Your task to perform on an android device: turn off picture-in-picture Image 0: 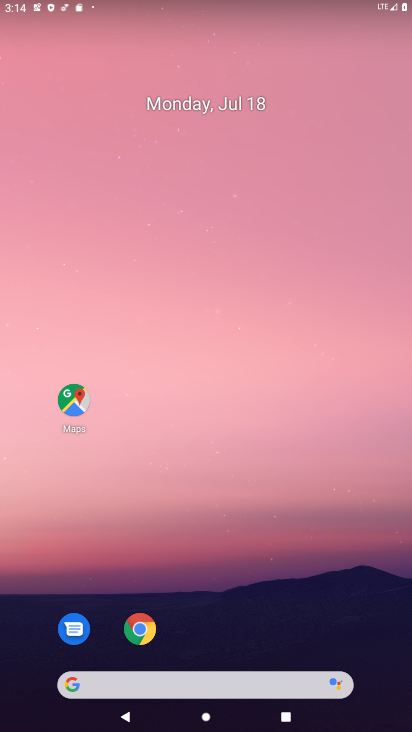
Step 0: click (152, 629)
Your task to perform on an android device: turn off picture-in-picture Image 1: 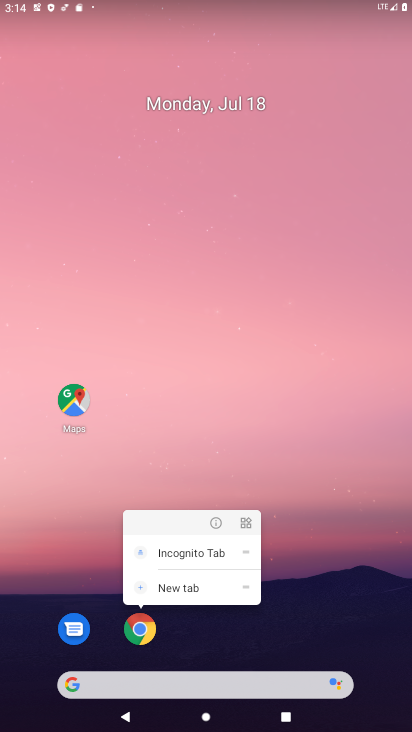
Step 1: click (210, 525)
Your task to perform on an android device: turn off picture-in-picture Image 2: 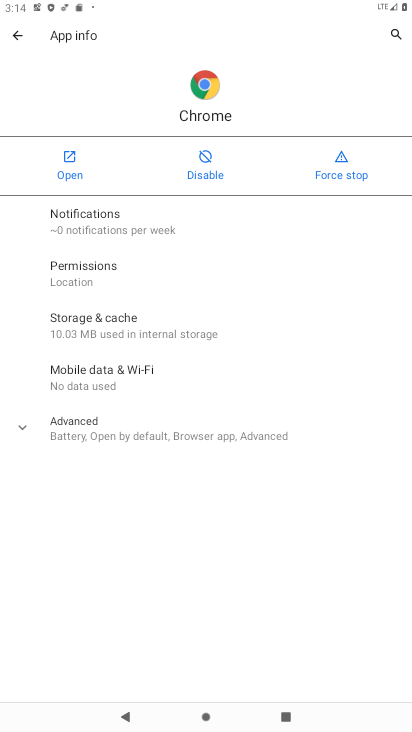
Step 2: click (93, 438)
Your task to perform on an android device: turn off picture-in-picture Image 3: 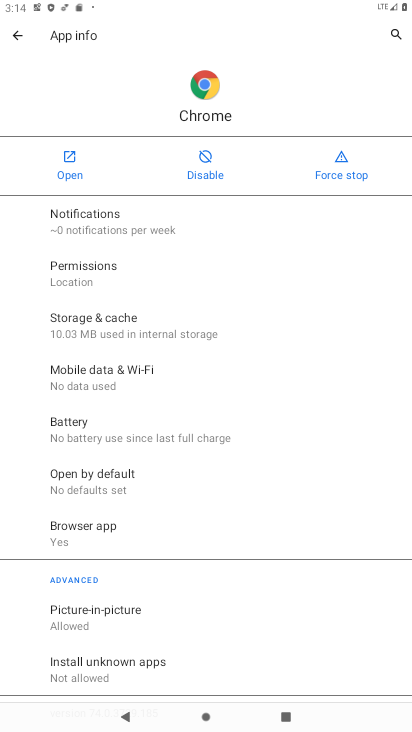
Step 3: click (101, 617)
Your task to perform on an android device: turn off picture-in-picture Image 4: 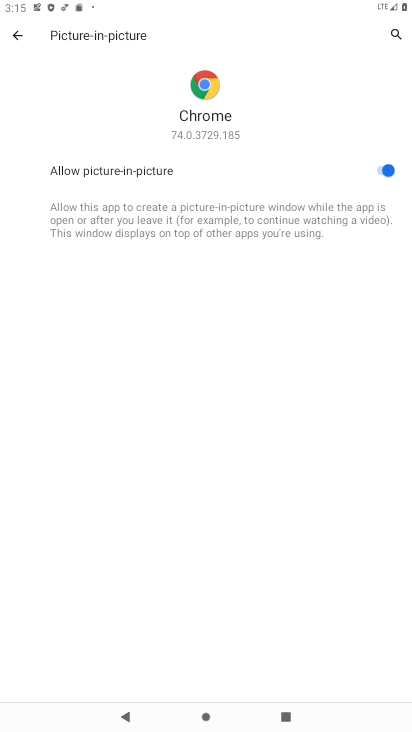
Step 4: click (364, 177)
Your task to perform on an android device: turn off picture-in-picture Image 5: 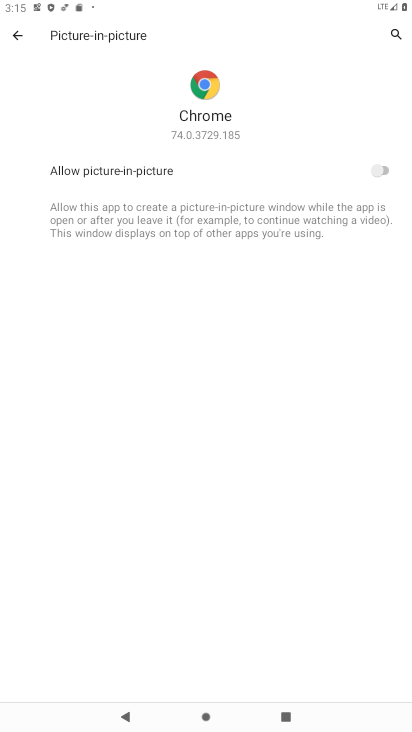
Step 5: task complete